Your task to perform on an android device: Play the last video I watched on Youtube Image 0: 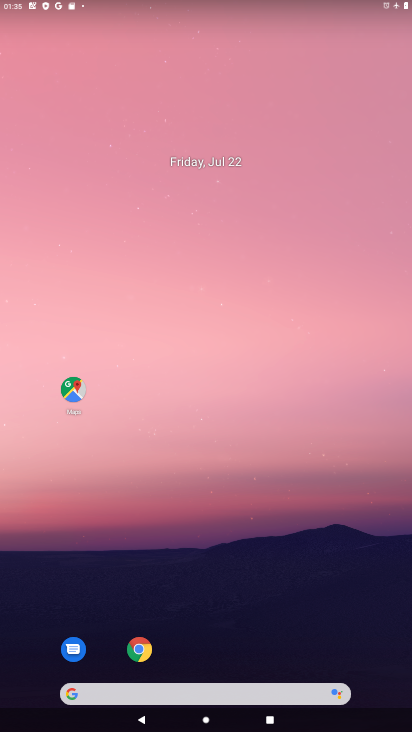
Step 0: drag from (254, 563) to (274, 44)
Your task to perform on an android device: Play the last video I watched on Youtube Image 1: 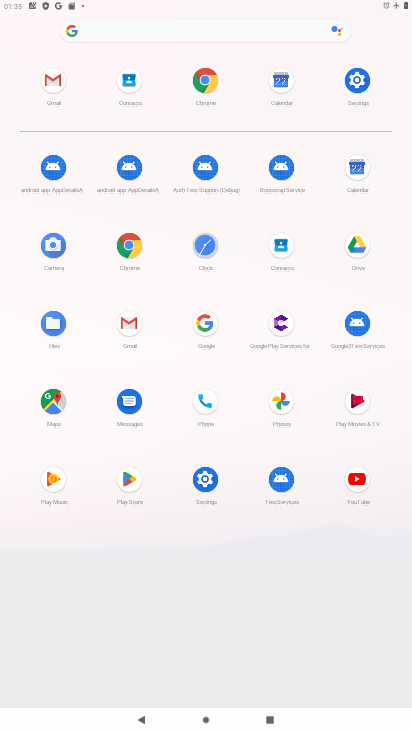
Step 1: click (349, 475)
Your task to perform on an android device: Play the last video I watched on Youtube Image 2: 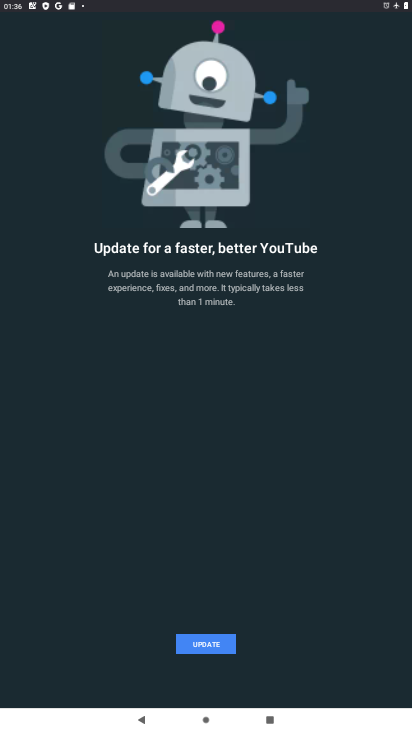
Step 2: click (210, 642)
Your task to perform on an android device: Play the last video I watched on Youtube Image 3: 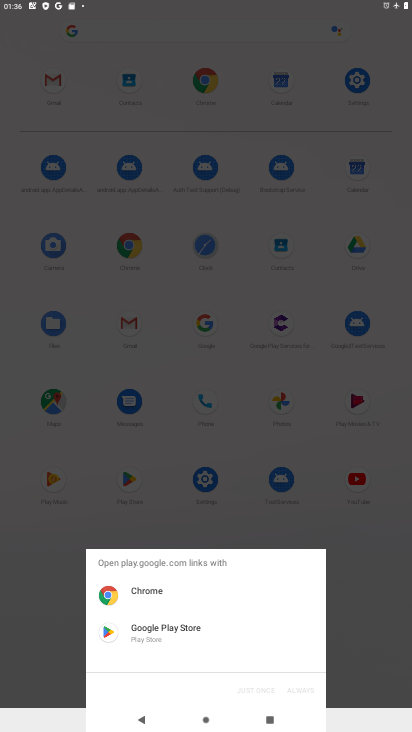
Step 3: click (179, 625)
Your task to perform on an android device: Play the last video I watched on Youtube Image 4: 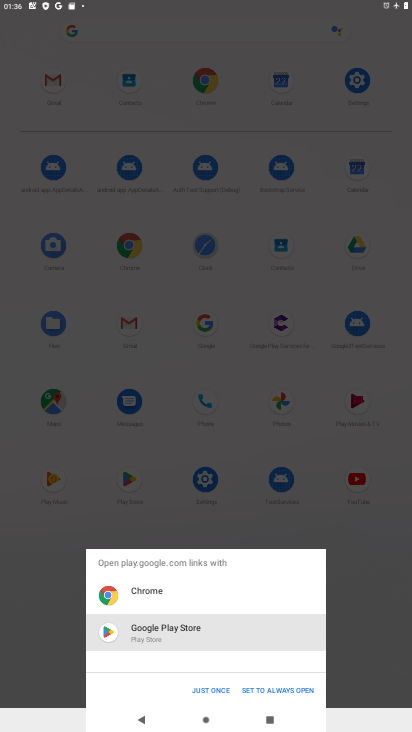
Step 4: click (206, 688)
Your task to perform on an android device: Play the last video I watched on Youtube Image 5: 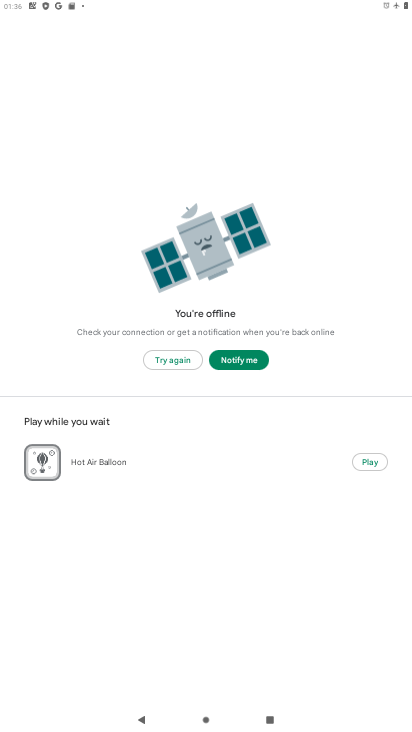
Step 5: task complete